Your task to perform on an android device: open app "Contacts" (install if not already installed) Image 0: 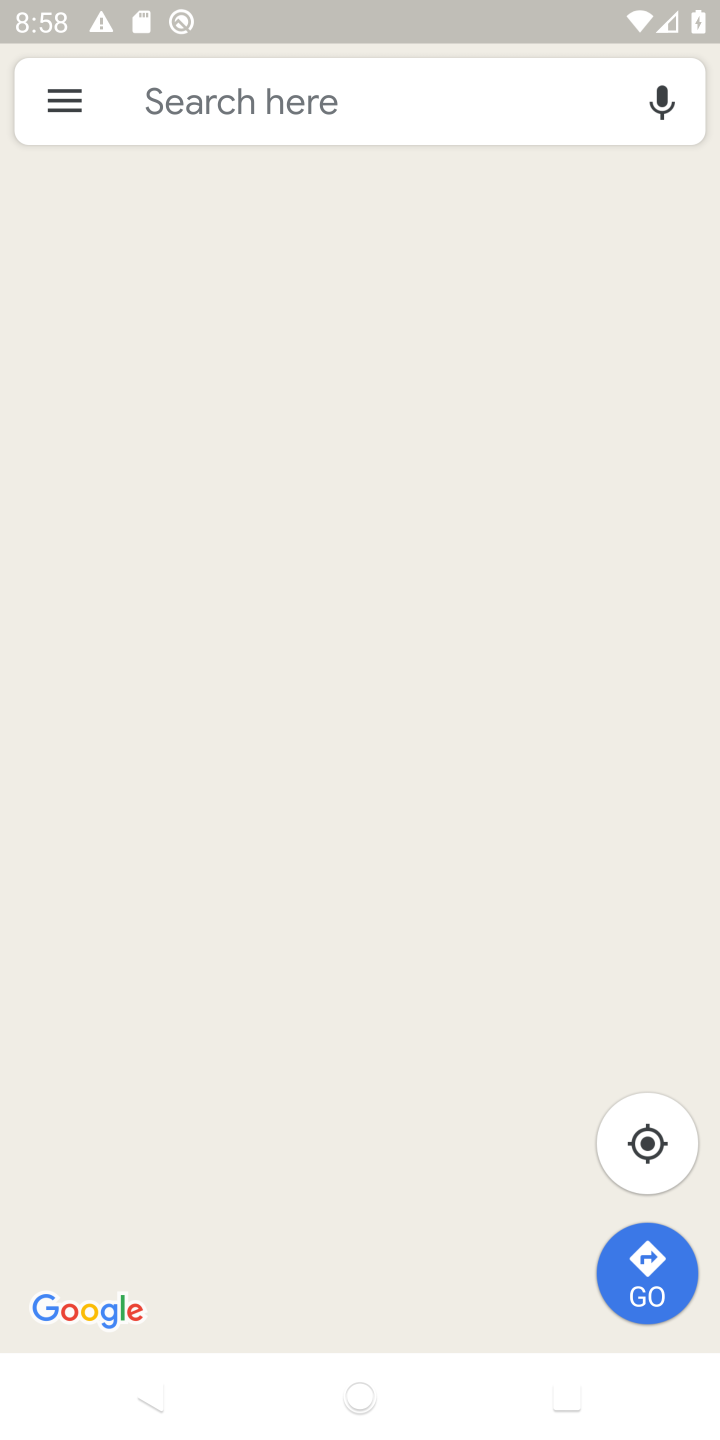
Step 0: press back button
Your task to perform on an android device: open app "Contacts" (install if not already installed) Image 1: 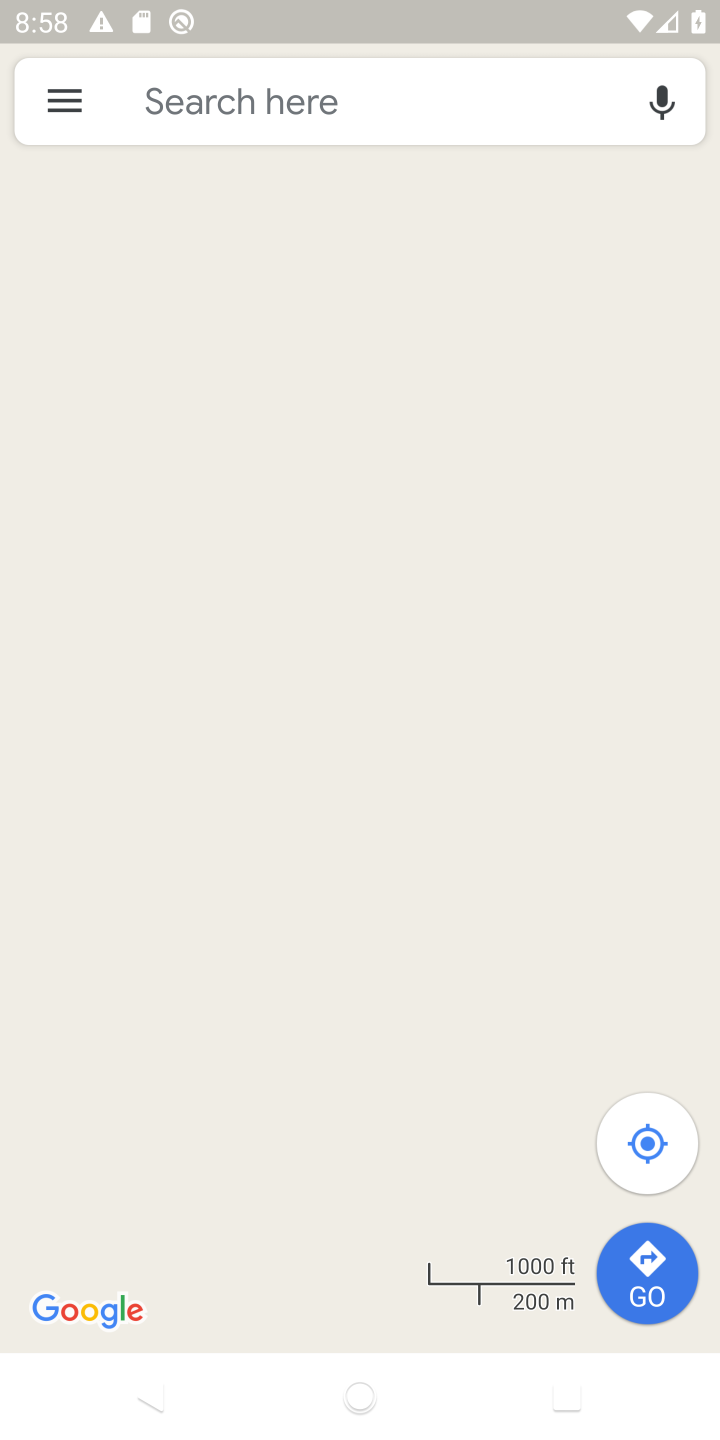
Step 1: press home button
Your task to perform on an android device: open app "Contacts" (install if not already installed) Image 2: 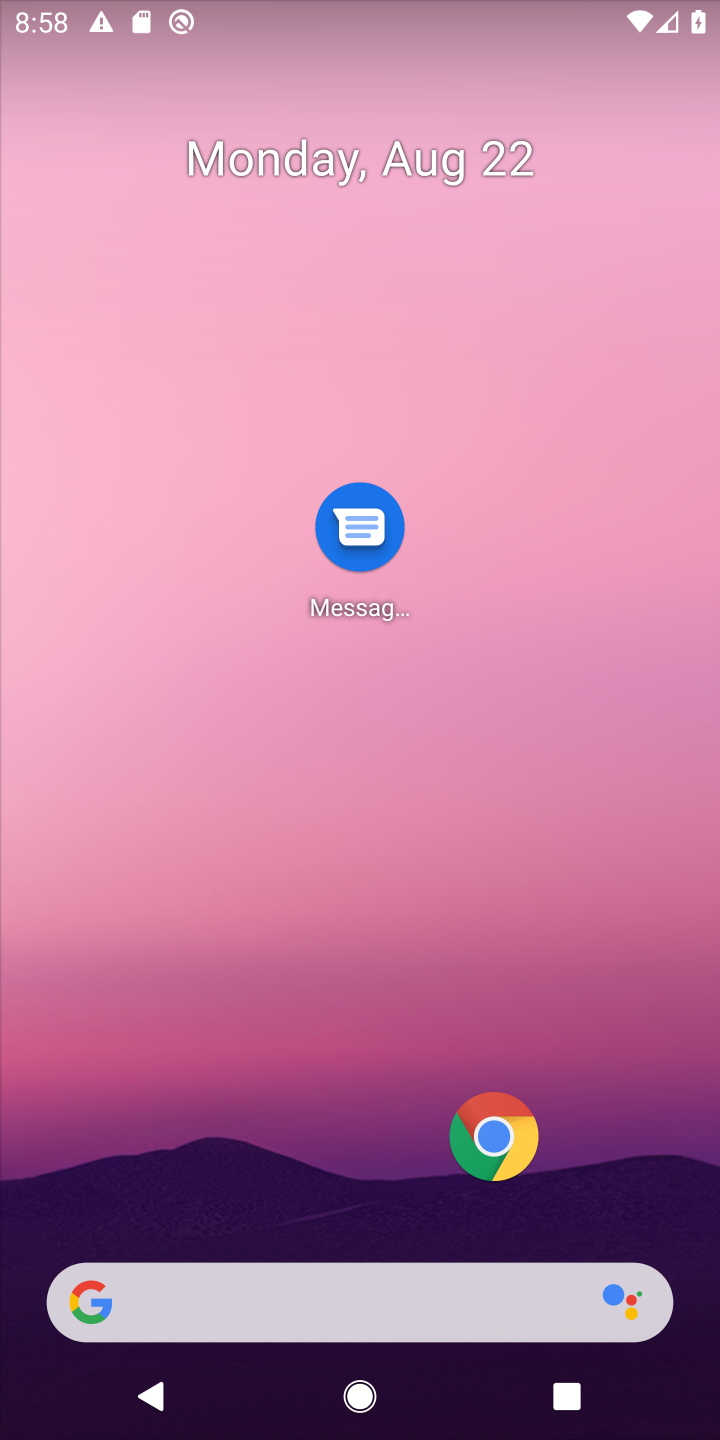
Step 2: press home button
Your task to perform on an android device: open app "Contacts" (install if not already installed) Image 3: 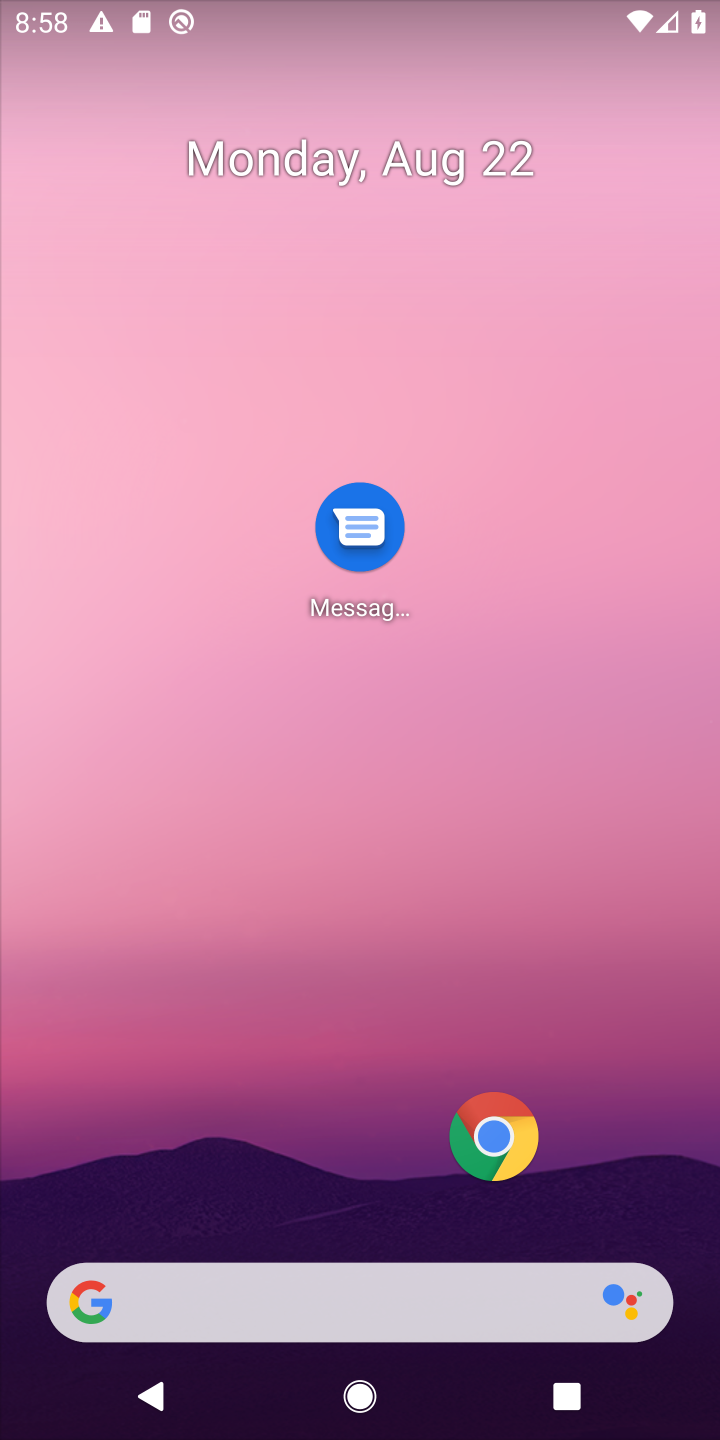
Step 3: drag from (273, 1216) to (282, 1)
Your task to perform on an android device: open app "Contacts" (install if not already installed) Image 4: 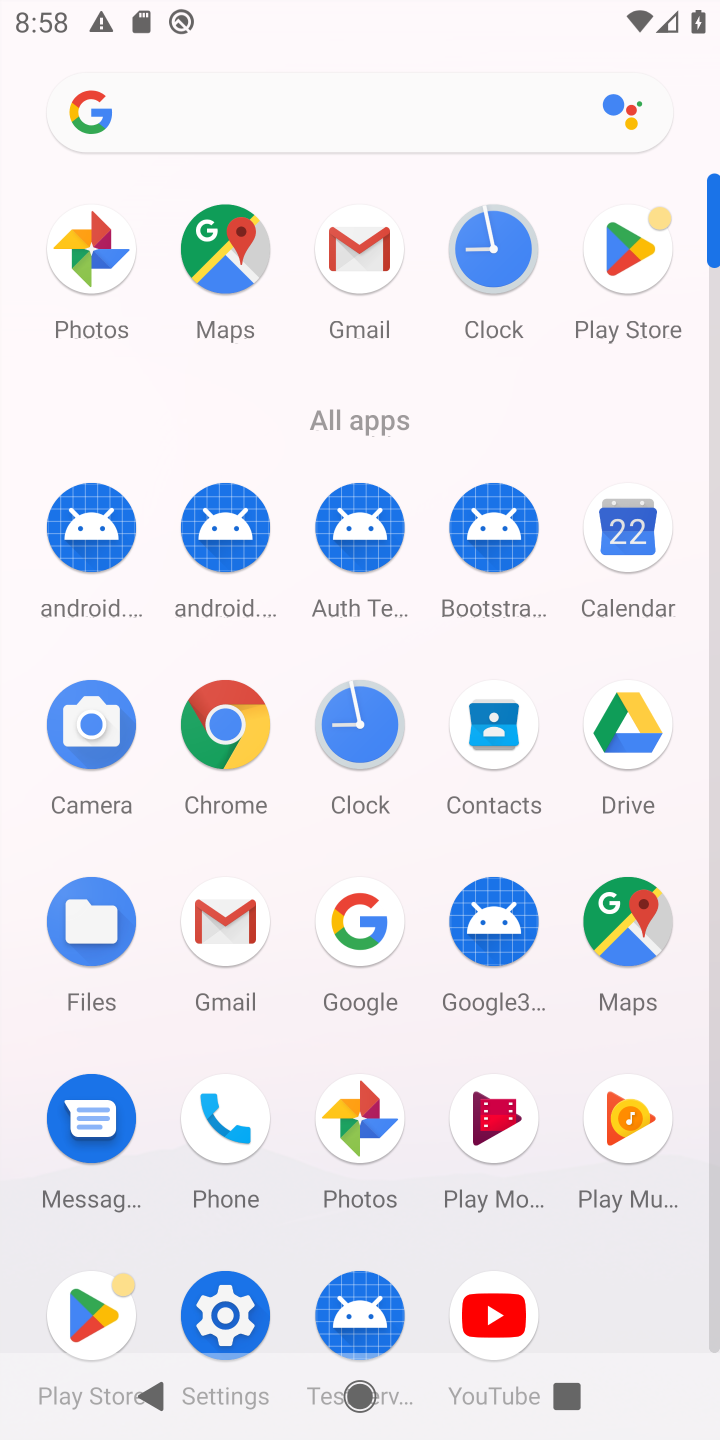
Step 4: click (619, 221)
Your task to perform on an android device: open app "Contacts" (install if not already installed) Image 5: 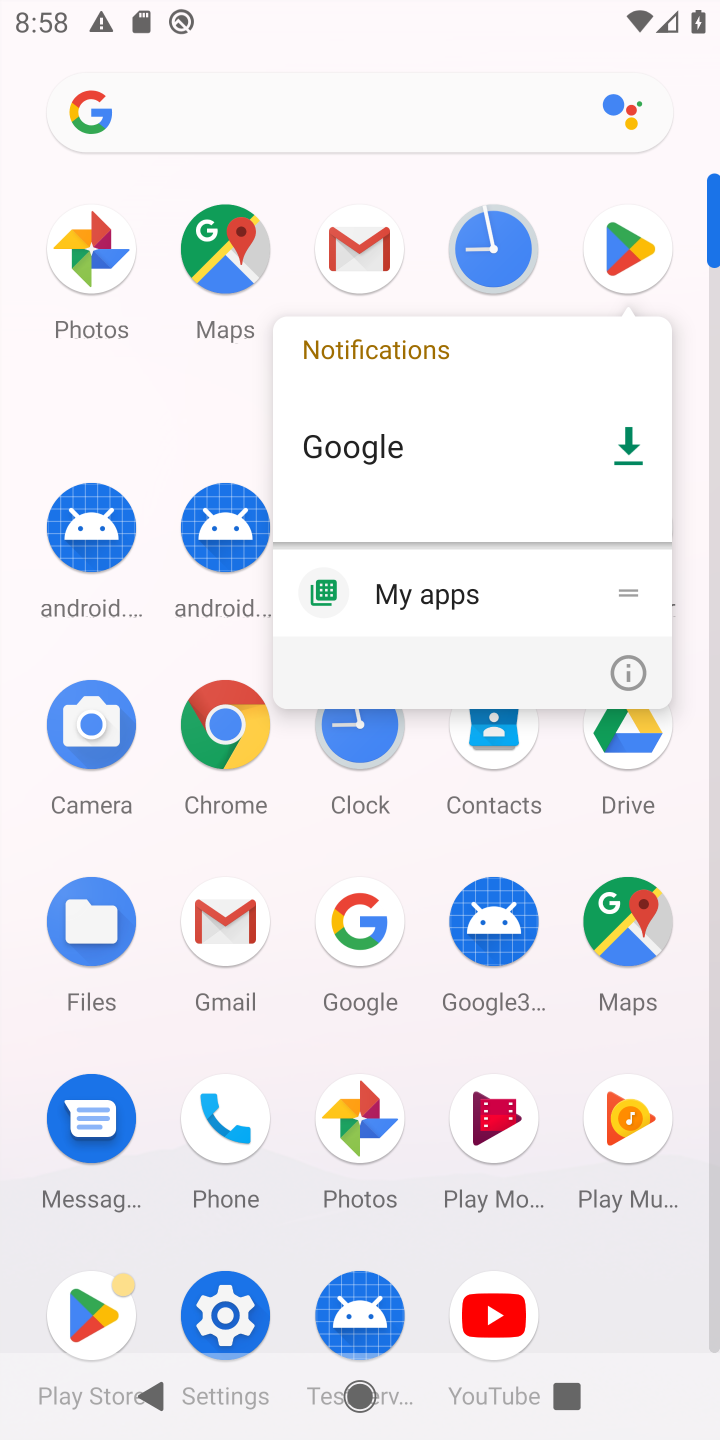
Step 5: click (623, 245)
Your task to perform on an android device: open app "Contacts" (install if not already installed) Image 6: 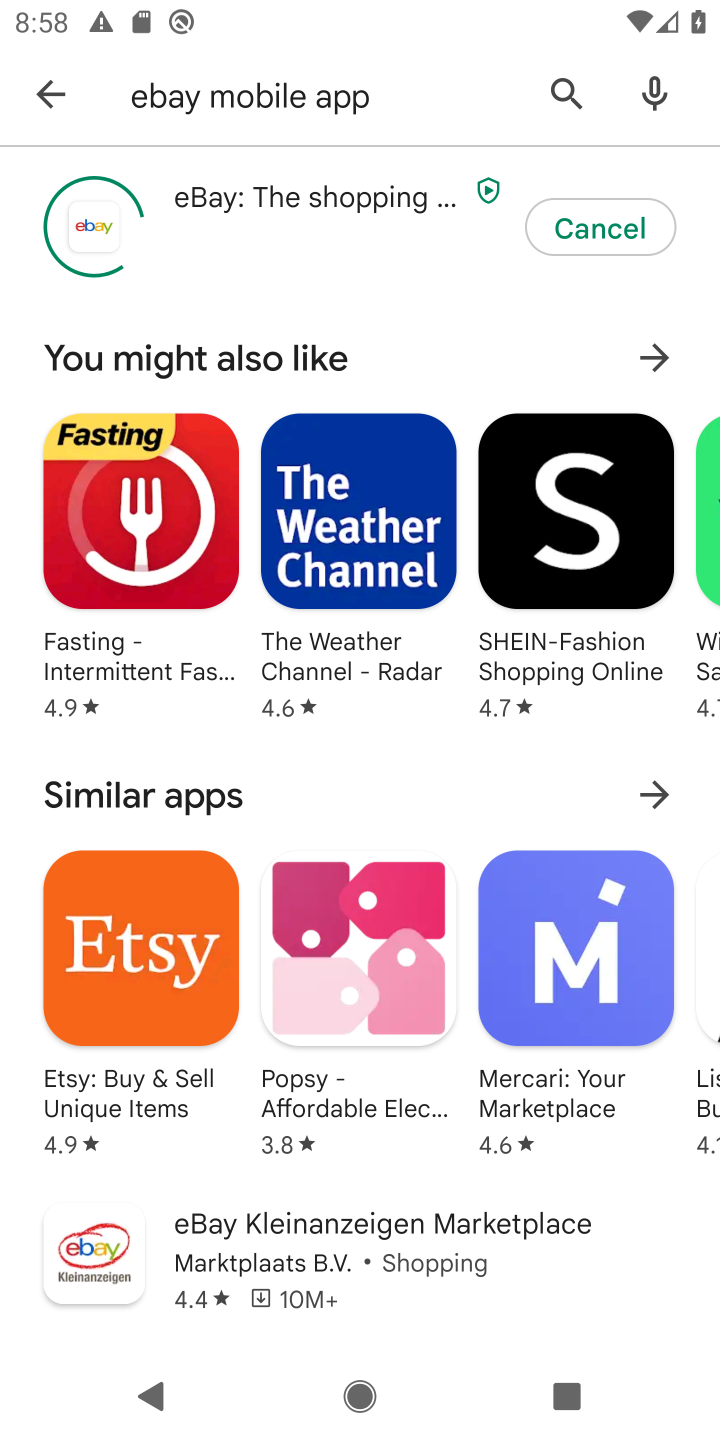
Step 6: click (82, 91)
Your task to perform on an android device: open app "Contacts" (install if not already installed) Image 7: 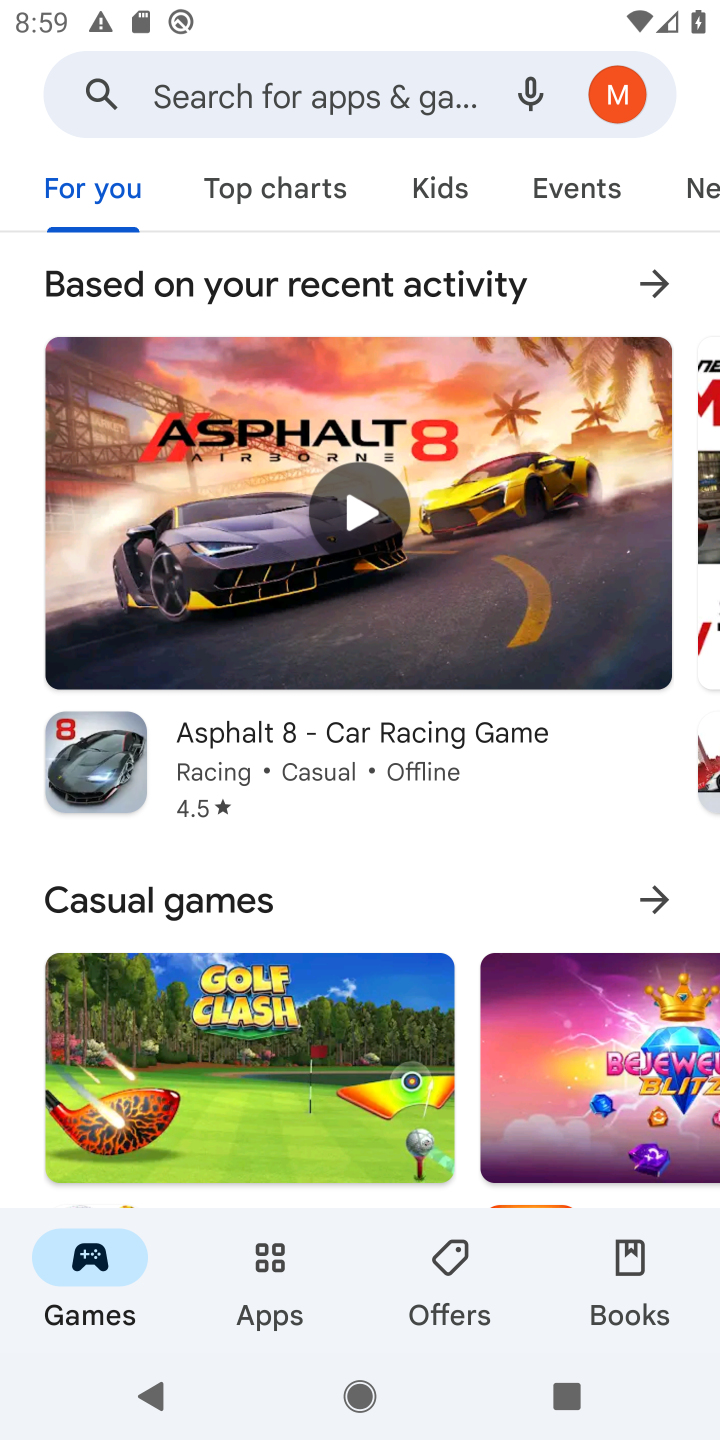
Step 7: click (337, 90)
Your task to perform on an android device: open app "Contacts" (install if not already installed) Image 8: 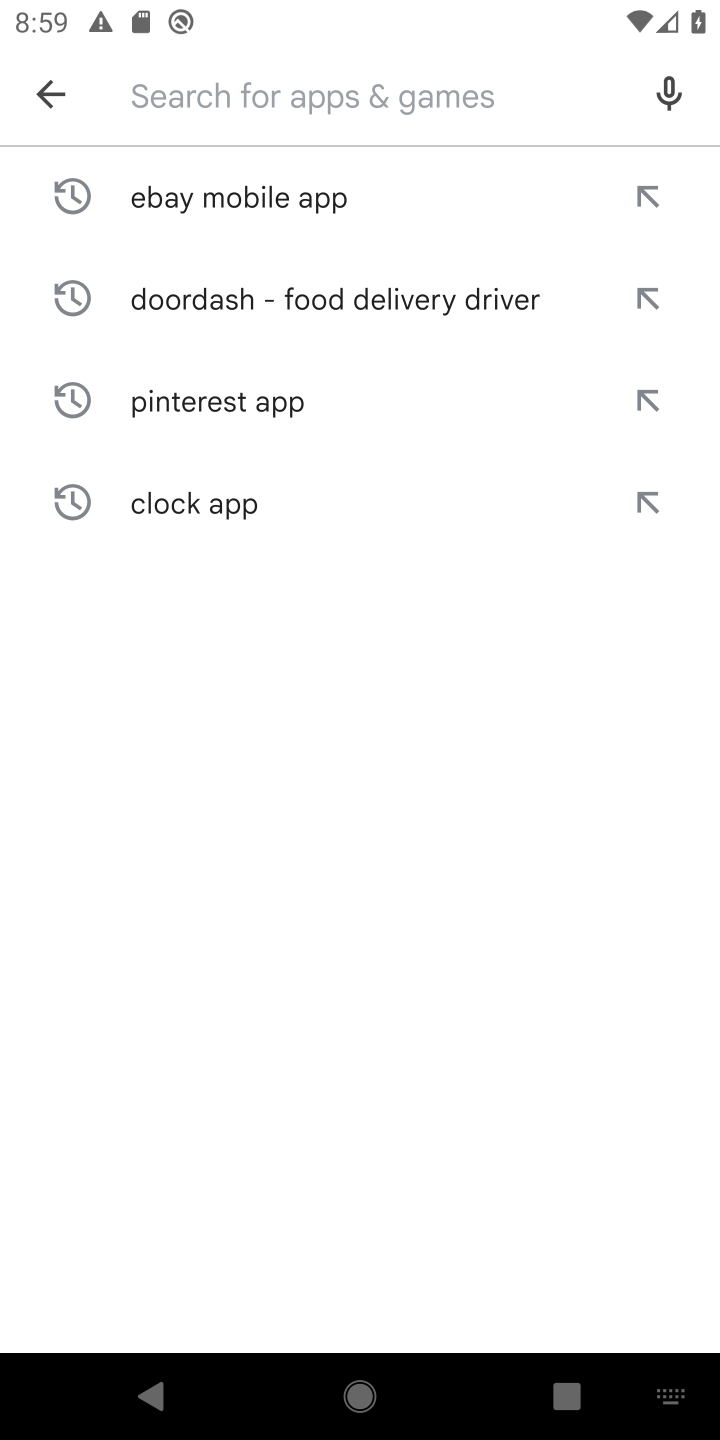
Step 8: type "Contacts "
Your task to perform on an android device: open app "Contacts" (install if not already installed) Image 9: 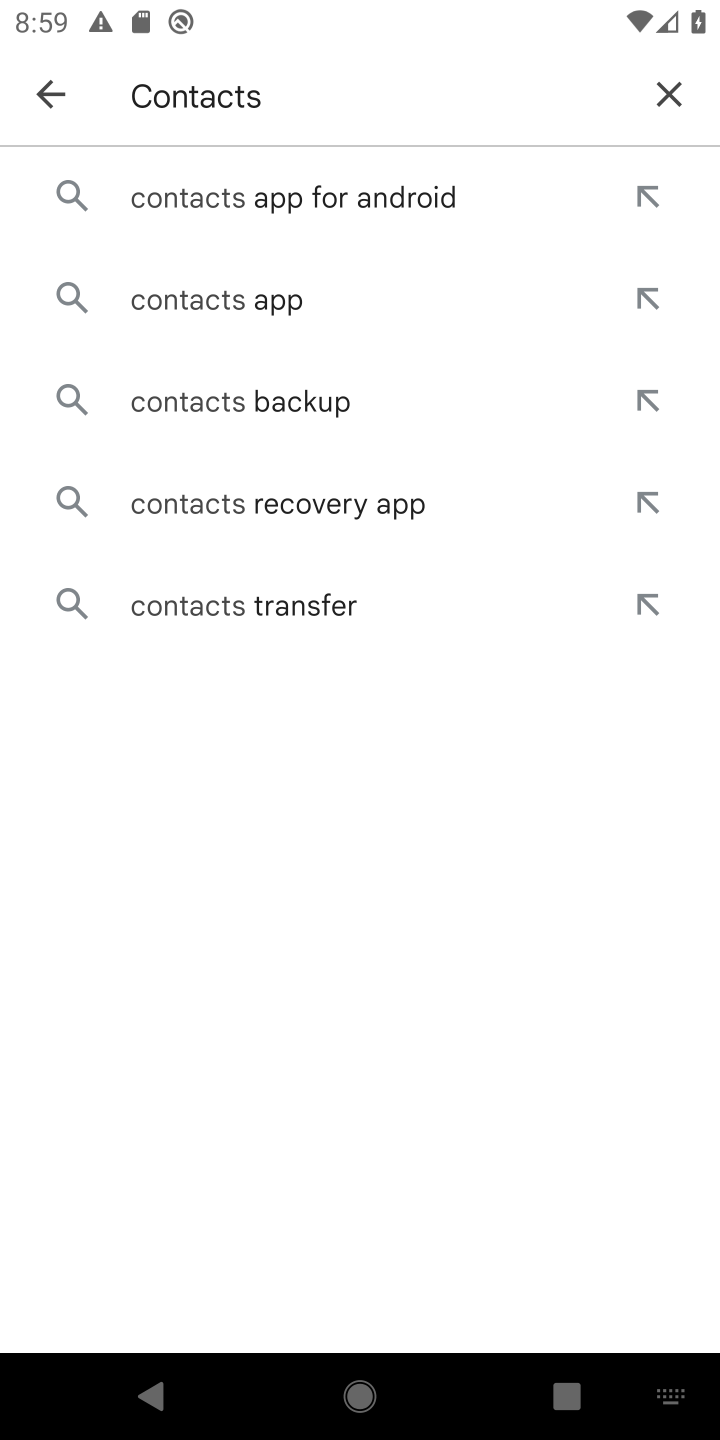
Step 9: click (235, 289)
Your task to perform on an android device: open app "Contacts" (install if not already installed) Image 10: 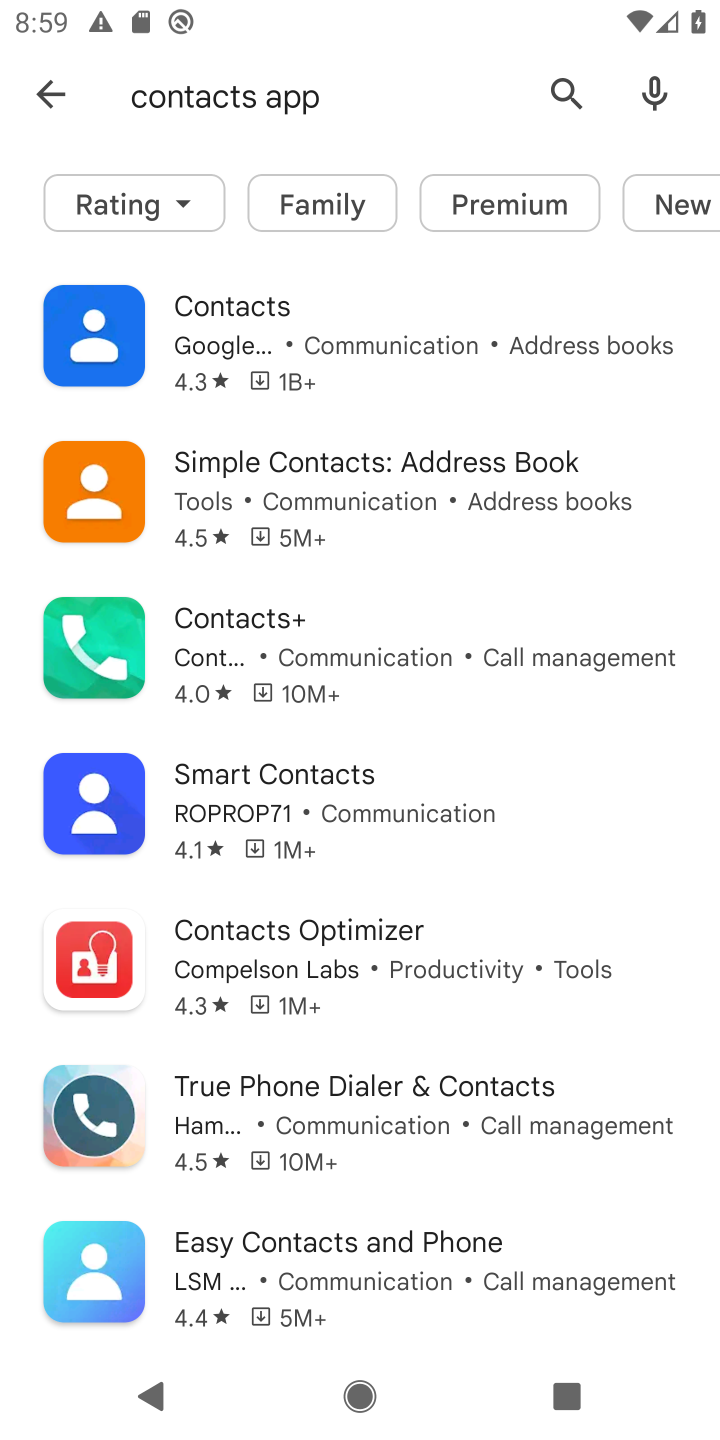
Step 10: click (246, 297)
Your task to perform on an android device: open app "Contacts" (install if not already installed) Image 11: 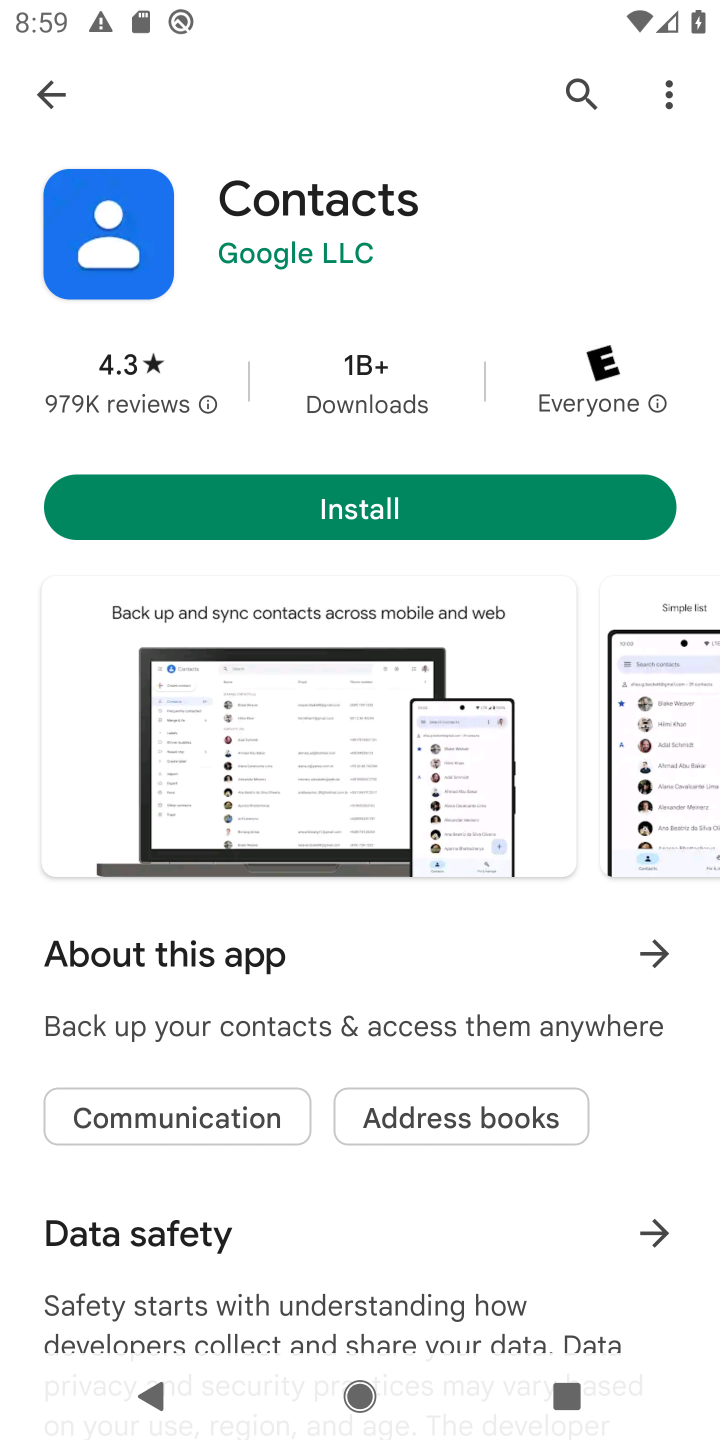
Step 11: click (336, 499)
Your task to perform on an android device: open app "Contacts" (install if not already installed) Image 12: 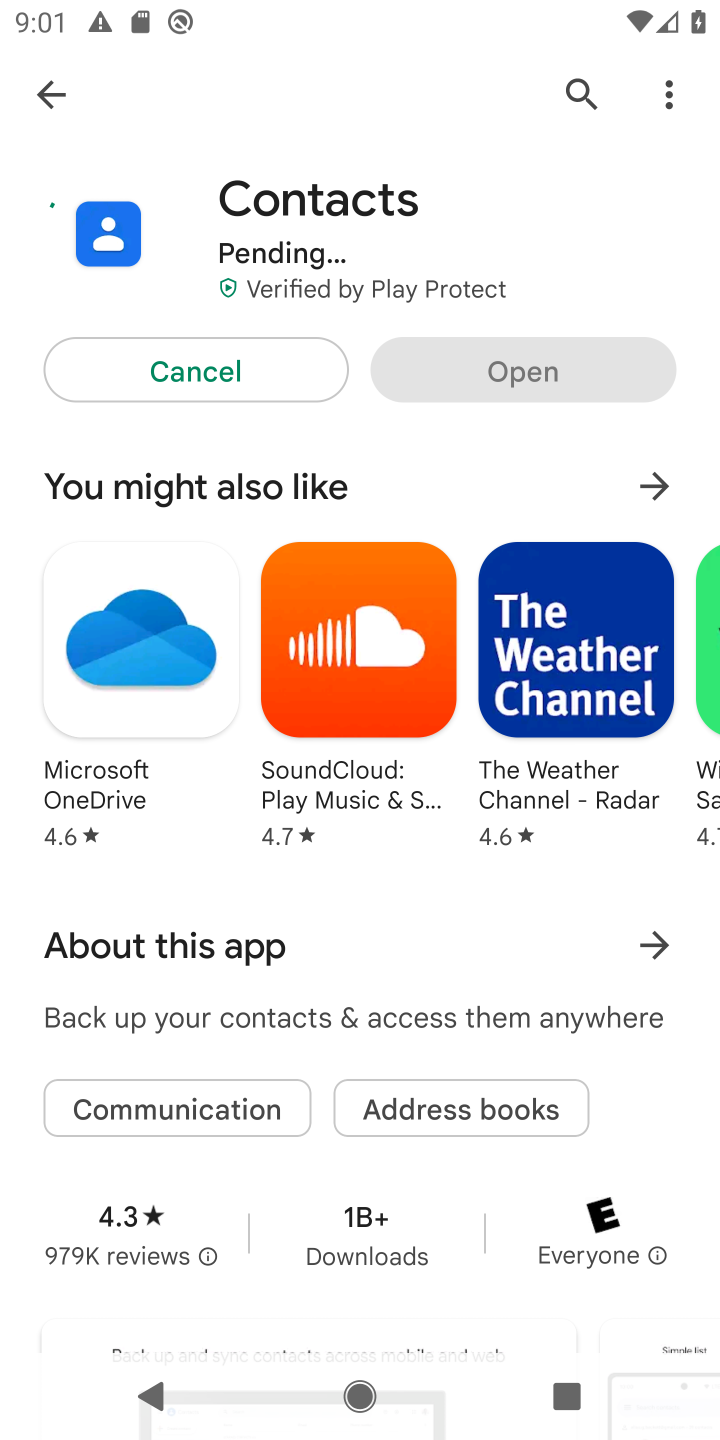
Step 12: task complete